Your task to perform on an android device: Show me popular videos on Youtube Image 0: 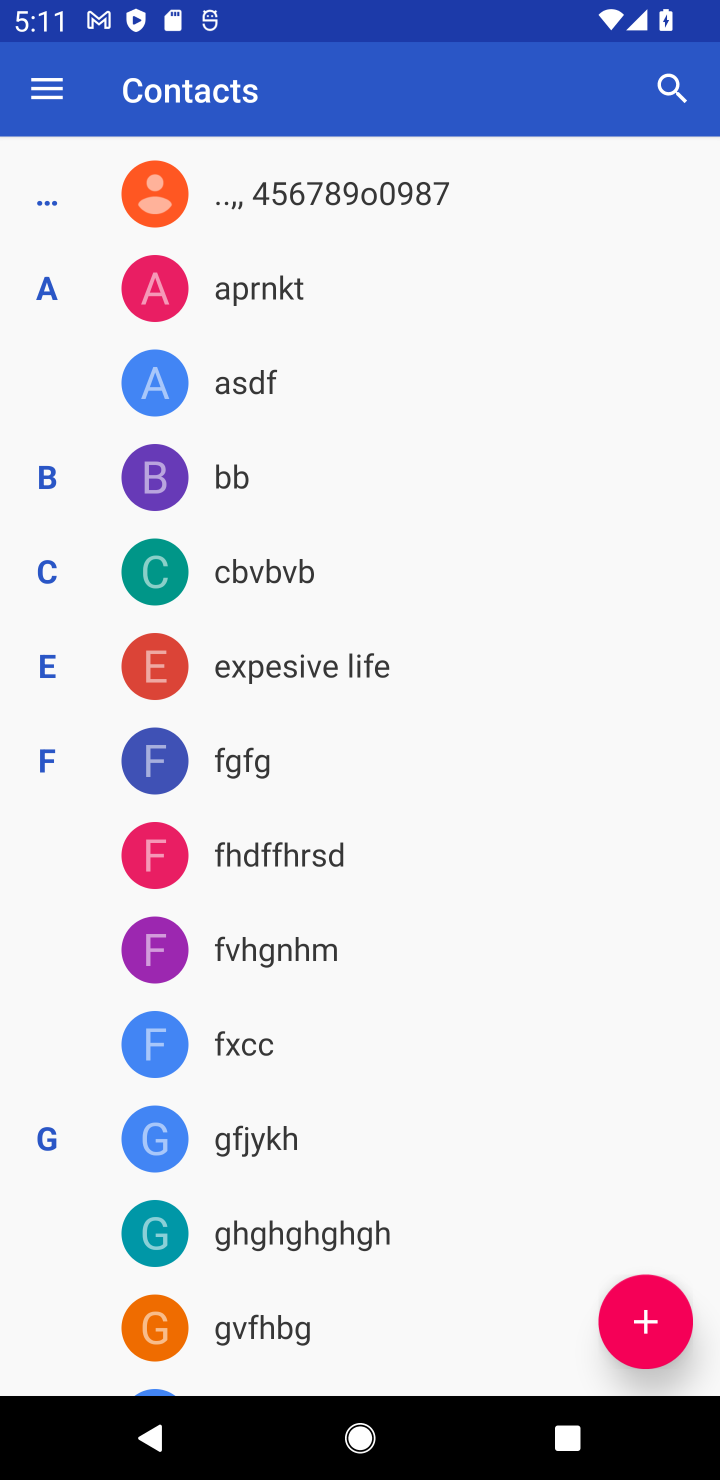
Step 0: task complete